Your task to perform on an android device: turn off notifications in google photos Image 0: 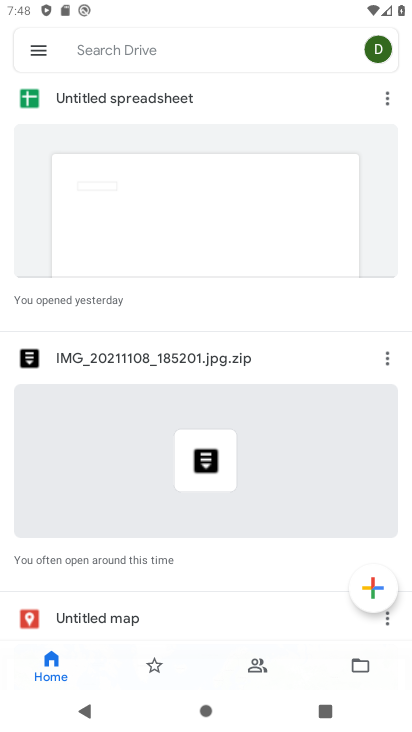
Step 0: drag from (206, 599) to (274, 401)
Your task to perform on an android device: turn off notifications in google photos Image 1: 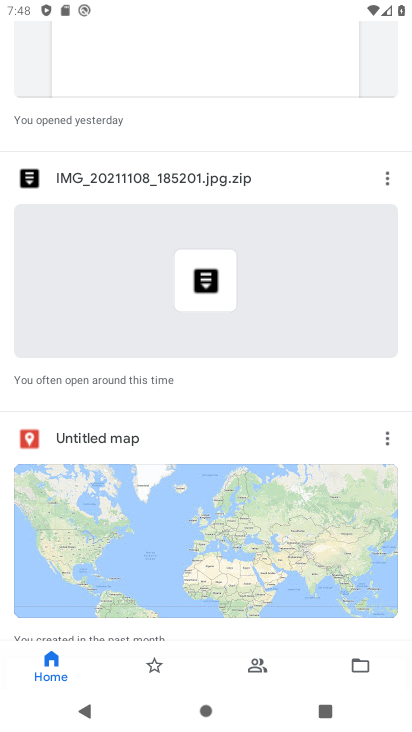
Step 1: drag from (279, 138) to (396, 540)
Your task to perform on an android device: turn off notifications in google photos Image 2: 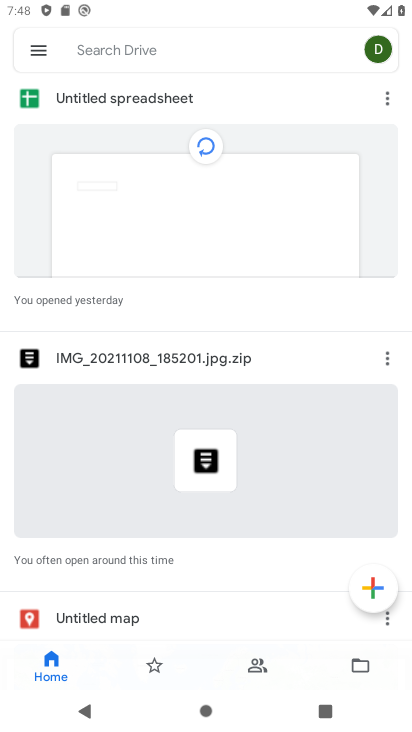
Step 2: press home button
Your task to perform on an android device: turn off notifications in google photos Image 3: 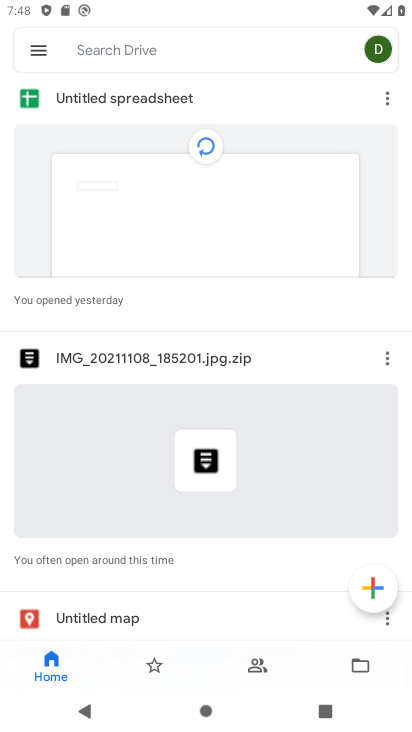
Step 3: click (396, 540)
Your task to perform on an android device: turn off notifications in google photos Image 4: 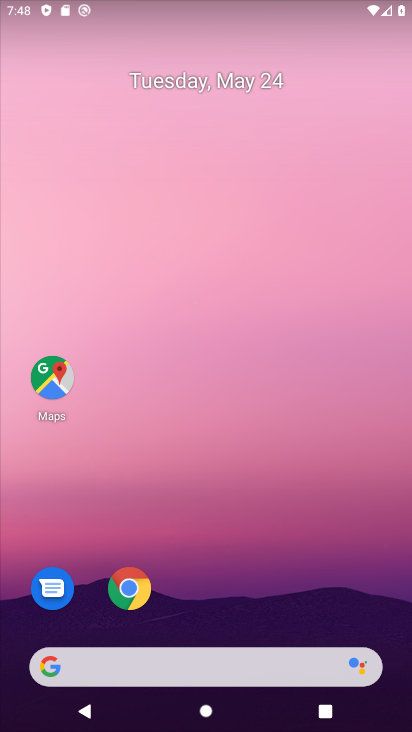
Step 4: drag from (197, 628) to (210, 21)
Your task to perform on an android device: turn off notifications in google photos Image 5: 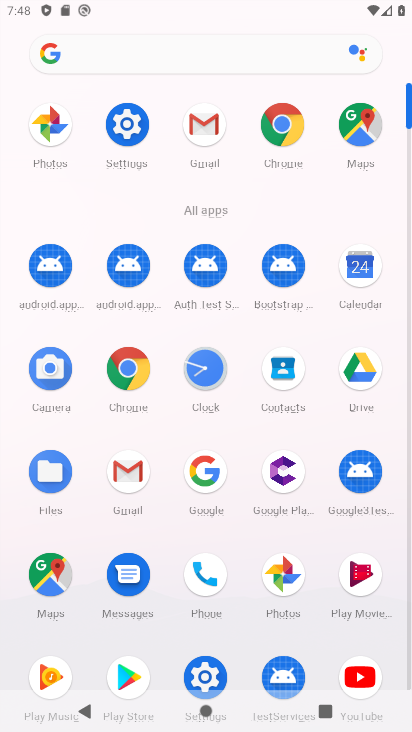
Step 5: click (289, 569)
Your task to perform on an android device: turn off notifications in google photos Image 6: 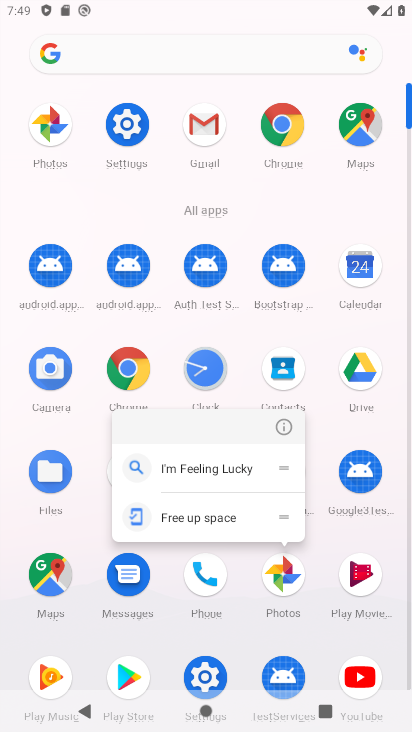
Step 6: click (283, 426)
Your task to perform on an android device: turn off notifications in google photos Image 7: 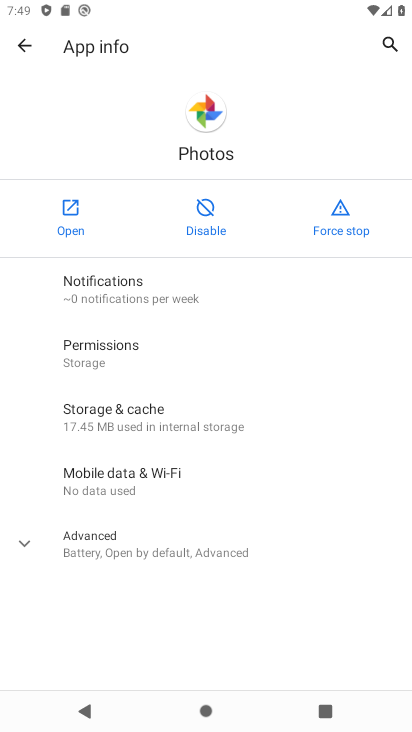
Step 7: click (49, 204)
Your task to perform on an android device: turn off notifications in google photos Image 8: 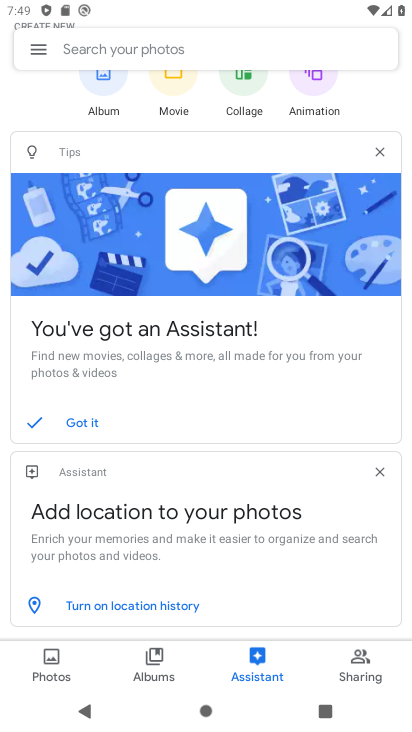
Step 8: drag from (320, 138) to (411, 473)
Your task to perform on an android device: turn off notifications in google photos Image 9: 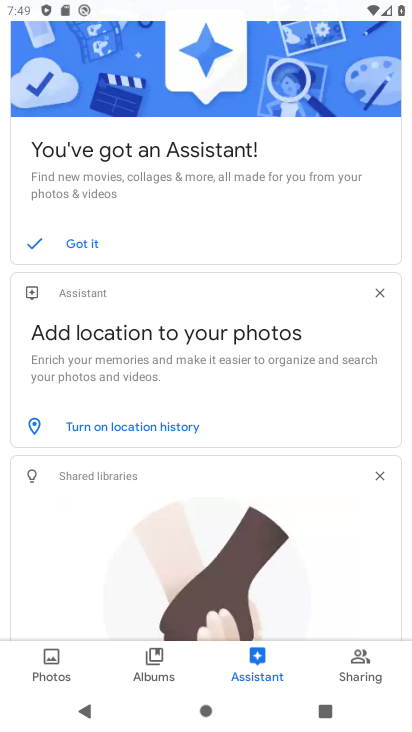
Step 9: drag from (276, 117) to (380, 638)
Your task to perform on an android device: turn off notifications in google photos Image 10: 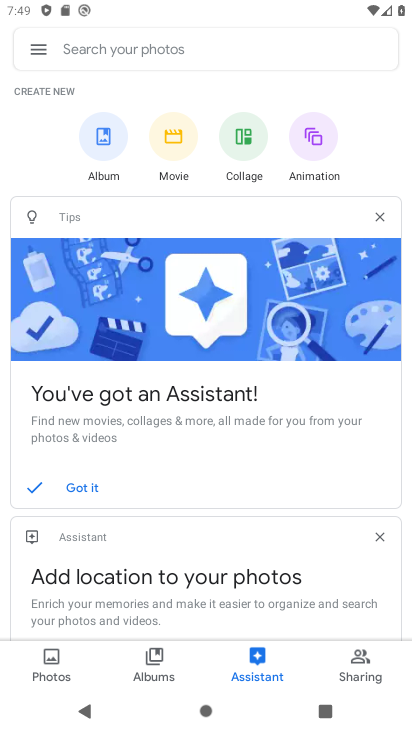
Step 10: drag from (160, 115) to (242, 530)
Your task to perform on an android device: turn off notifications in google photos Image 11: 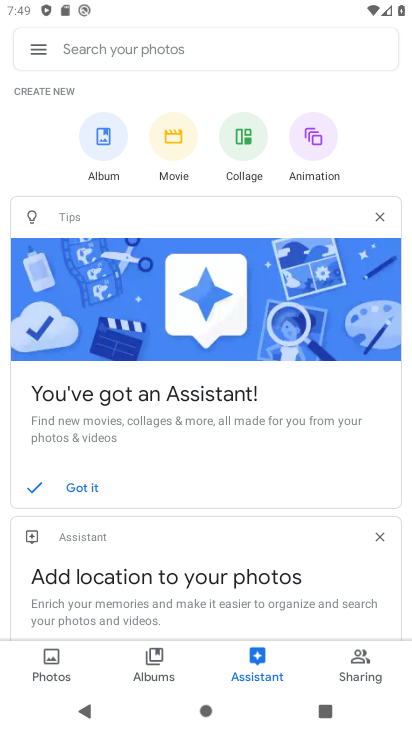
Step 11: click (35, 52)
Your task to perform on an android device: turn off notifications in google photos Image 12: 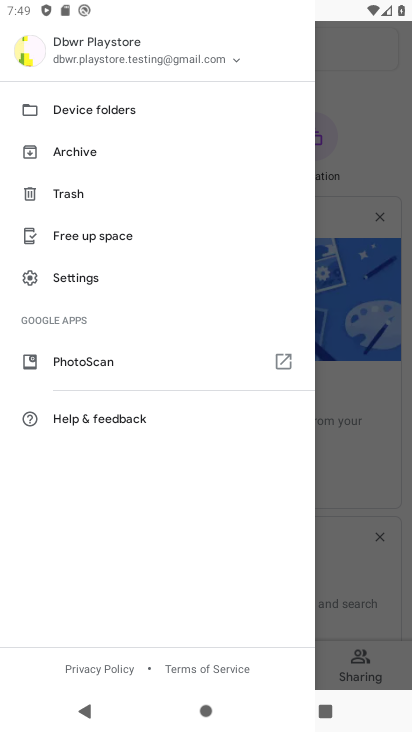
Step 12: click (68, 265)
Your task to perform on an android device: turn off notifications in google photos Image 13: 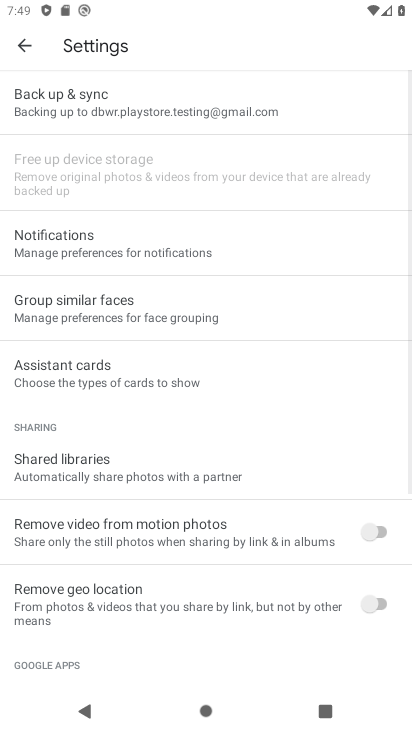
Step 13: drag from (152, 570) to (211, 79)
Your task to perform on an android device: turn off notifications in google photos Image 14: 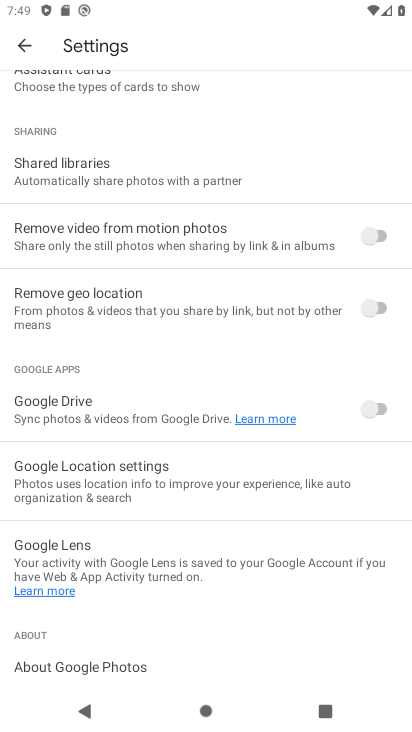
Step 14: drag from (186, 191) to (349, 626)
Your task to perform on an android device: turn off notifications in google photos Image 15: 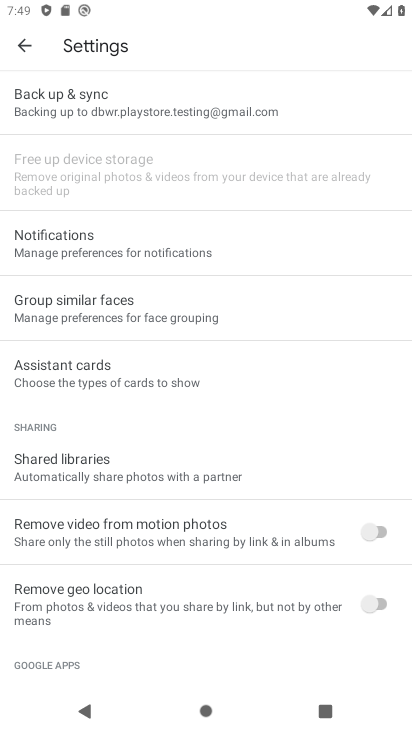
Step 15: click (125, 232)
Your task to perform on an android device: turn off notifications in google photos Image 16: 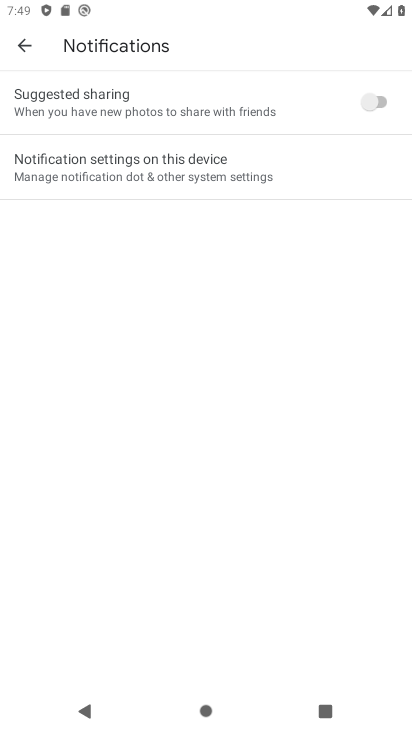
Step 16: click (142, 165)
Your task to perform on an android device: turn off notifications in google photos Image 17: 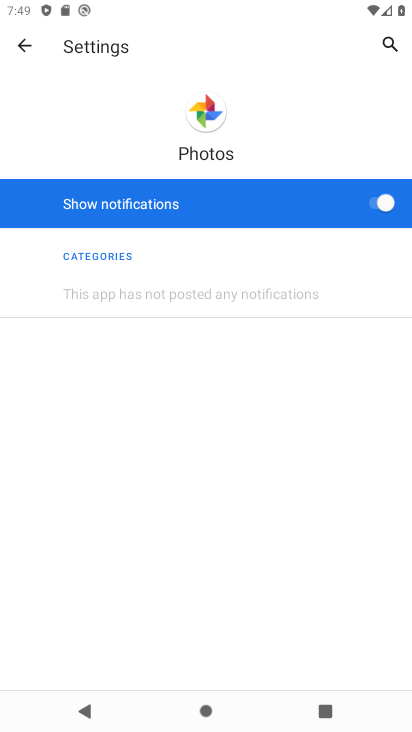
Step 17: click (368, 202)
Your task to perform on an android device: turn off notifications in google photos Image 18: 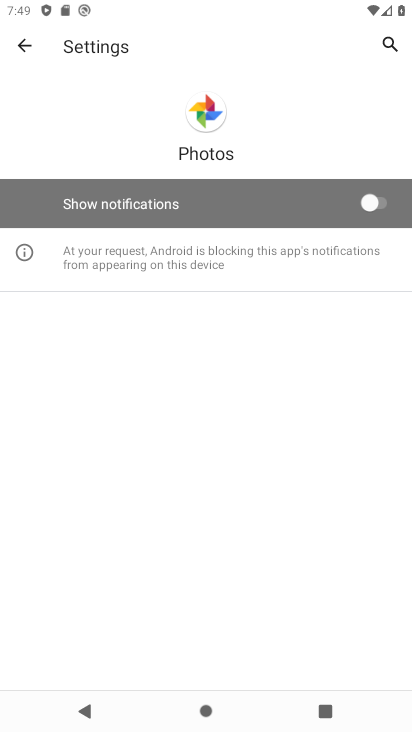
Step 18: task complete